Your task to perform on an android device: Open settings on Google Maps Image 0: 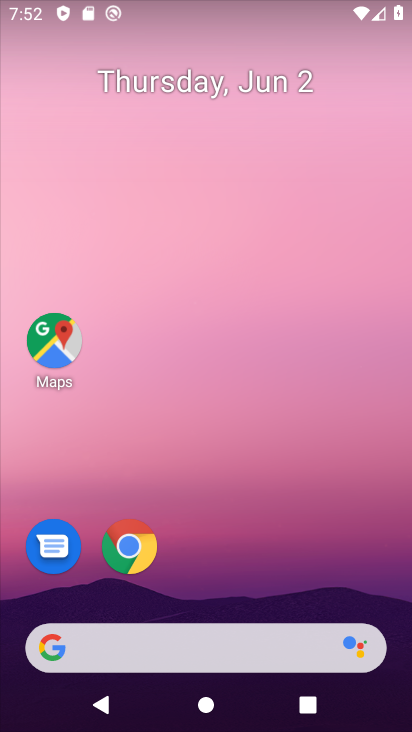
Step 0: drag from (235, 641) to (166, 371)
Your task to perform on an android device: Open settings on Google Maps Image 1: 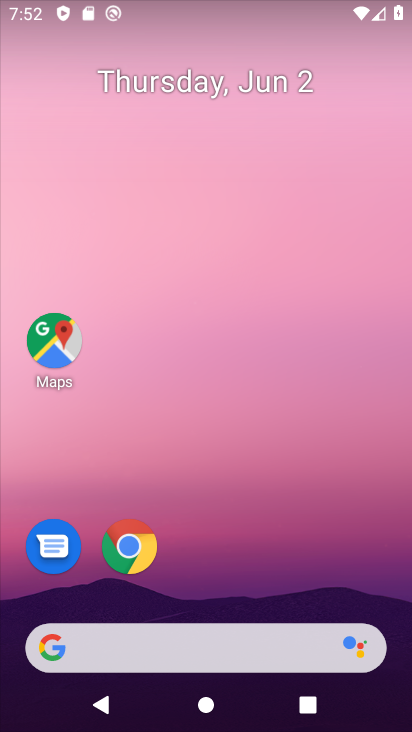
Step 1: drag from (264, 714) to (207, 177)
Your task to perform on an android device: Open settings on Google Maps Image 2: 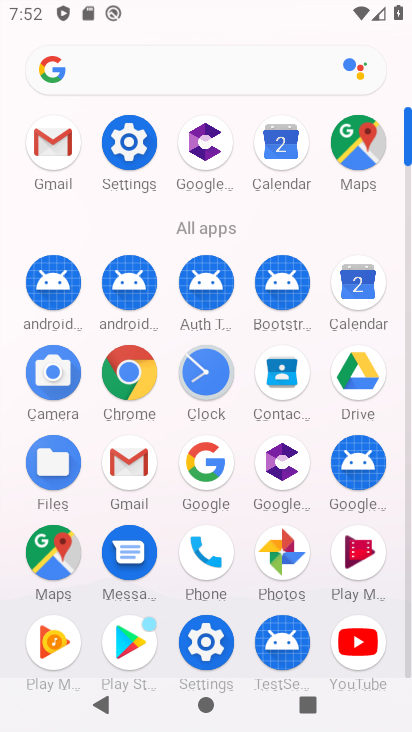
Step 2: click (48, 555)
Your task to perform on an android device: Open settings on Google Maps Image 3: 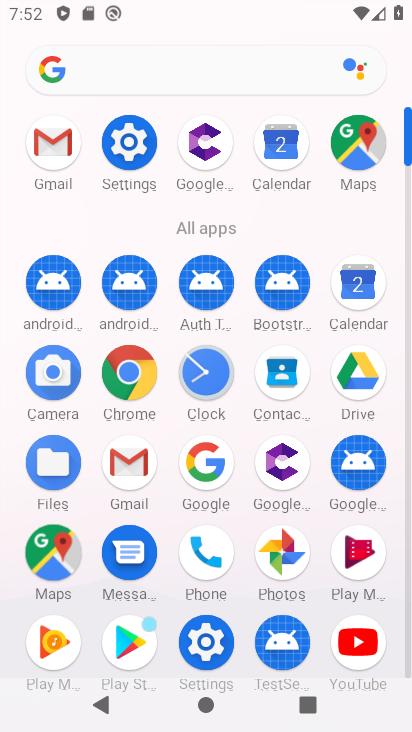
Step 3: click (50, 556)
Your task to perform on an android device: Open settings on Google Maps Image 4: 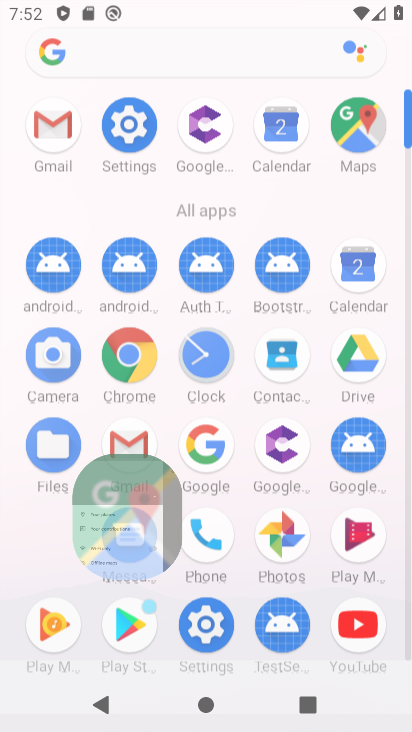
Step 4: click (53, 555)
Your task to perform on an android device: Open settings on Google Maps Image 5: 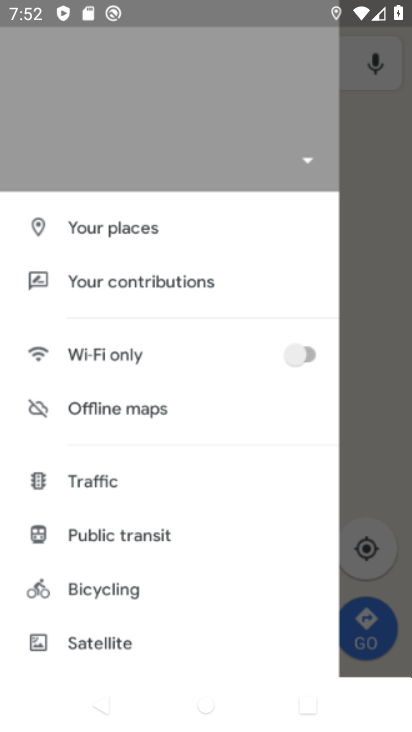
Step 5: click (54, 554)
Your task to perform on an android device: Open settings on Google Maps Image 6: 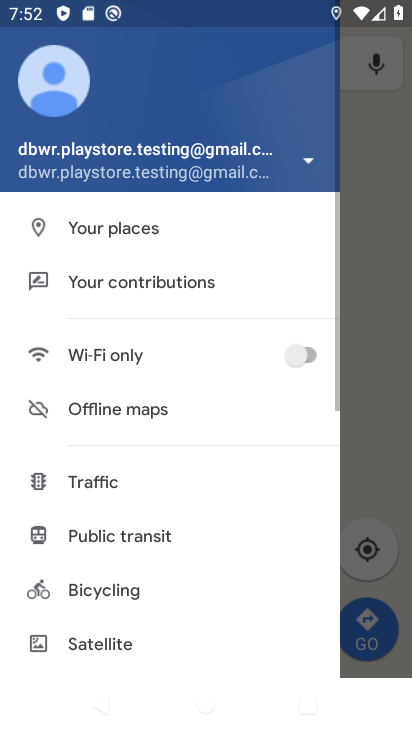
Step 6: click (371, 139)
Your task to perform on an android device: Open settings on Google Maps Image 7: 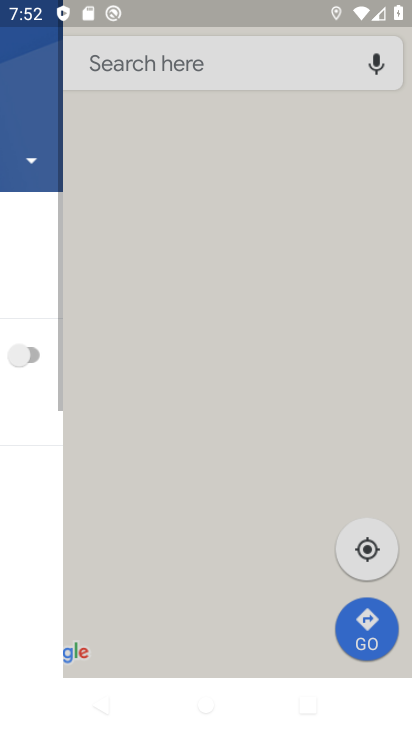
Step 7: click (374, 229)
Your task to perform on an android device: Open settings on Google Maps Image 8: 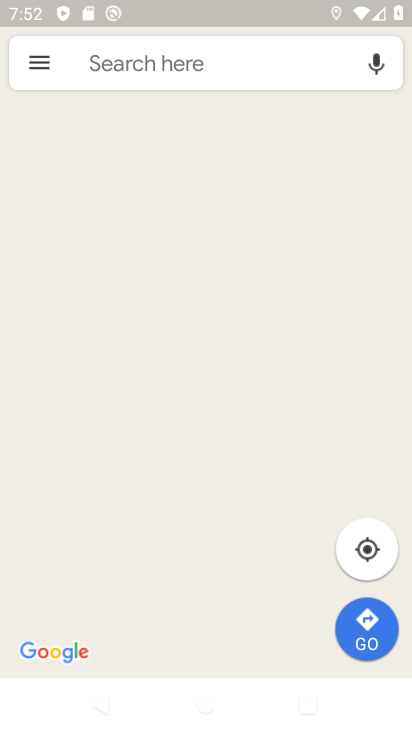
Step 8: task complete